Your task to perform on an android device: open app "Cash App" (install if not already installed) Image 0: 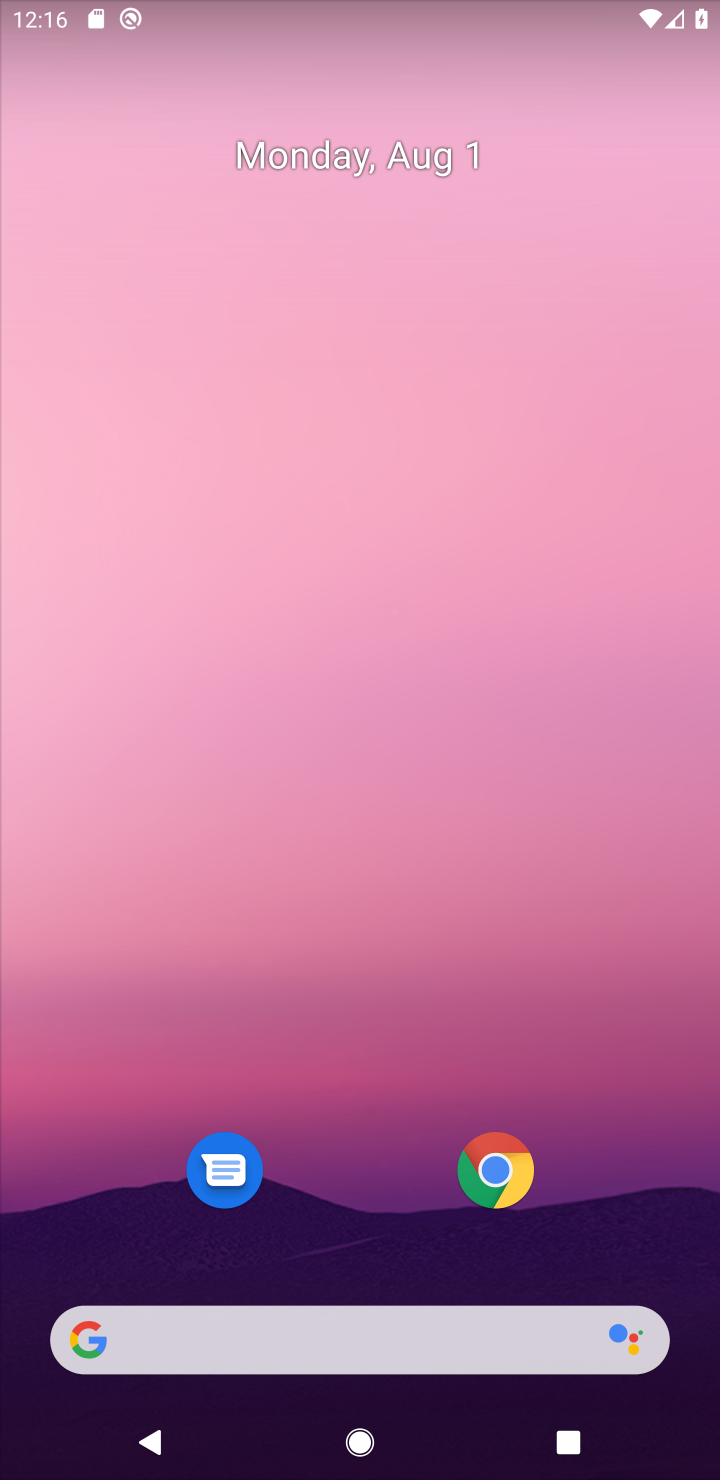
Step 0: press home button
Your task to perform on an android device: open app "Cash App" (install if not already installed) Image 1: 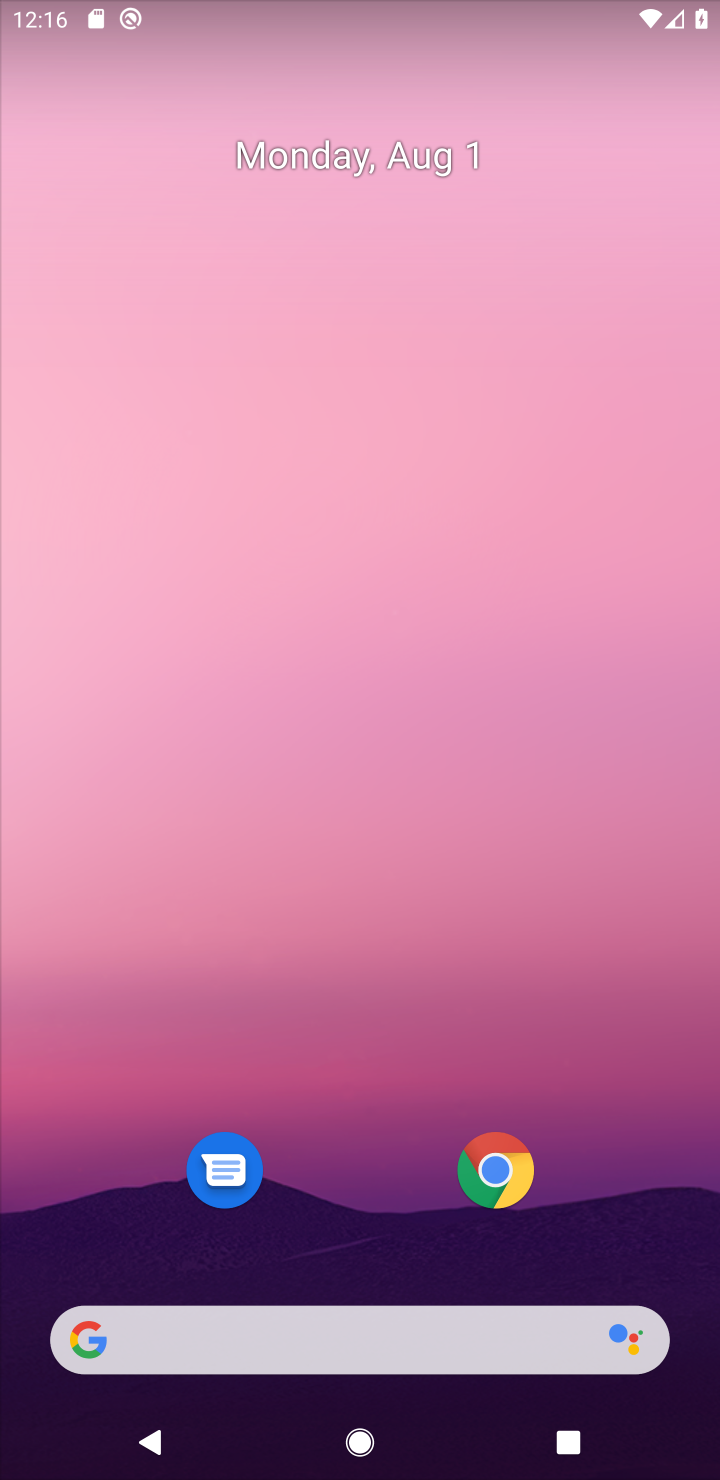
Step 1: drag from (646, 1209) to (268, 50)
Your task to perform on an android device: open app "Cash App" (install if not already installed) Image 2: 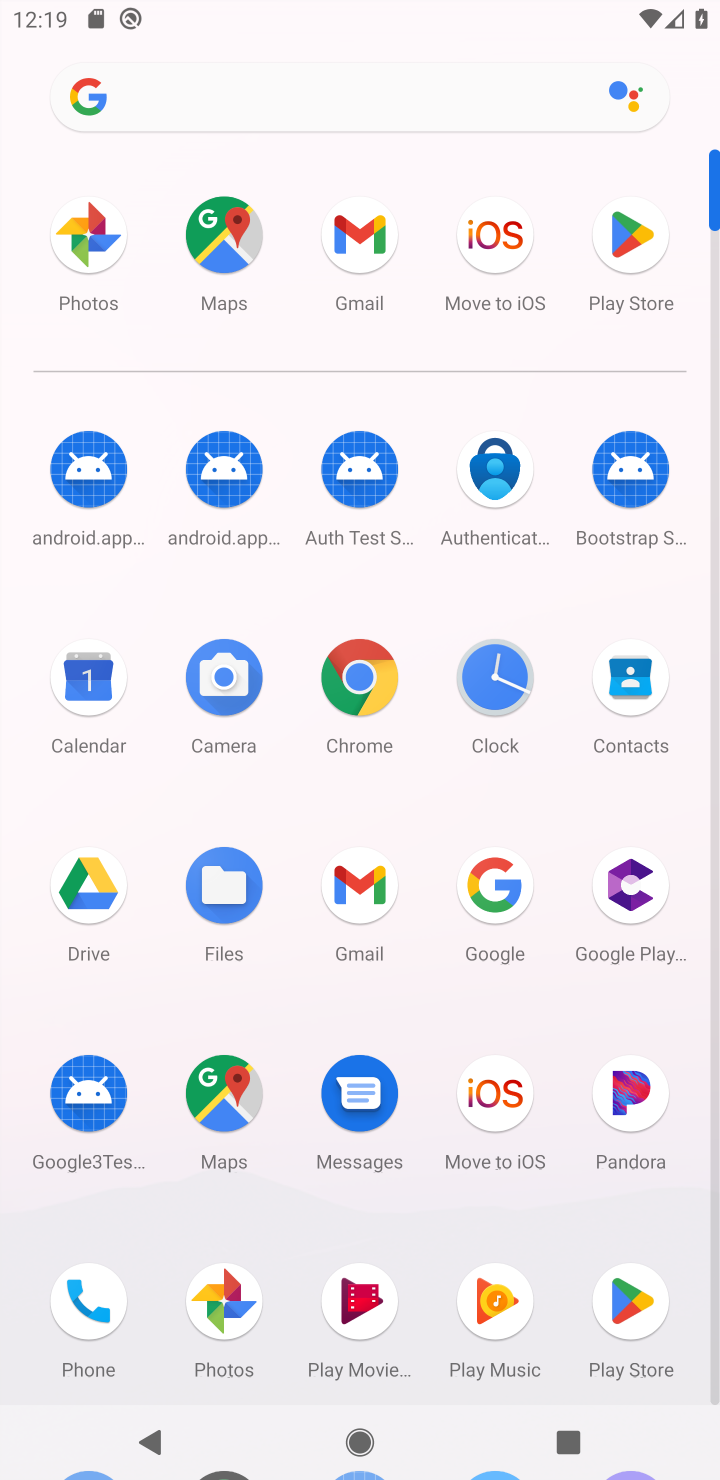
Step 2: click (617, 251)
Your task to perform on an android device: open app "Cash App" (install if not already installed) Image 3: 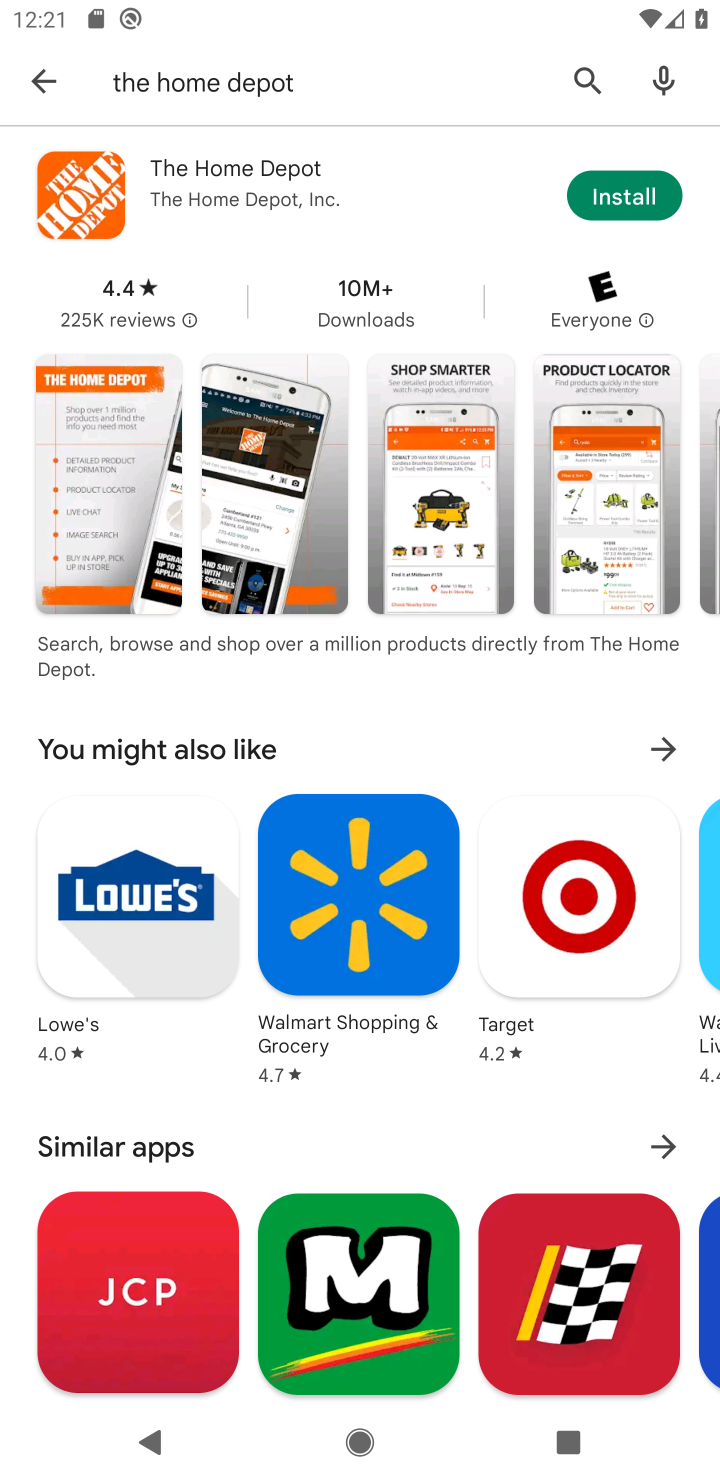
Step 3: press back button
Your task to perform on an android device: open app "Cash App" (install if not already installed) Image 4: 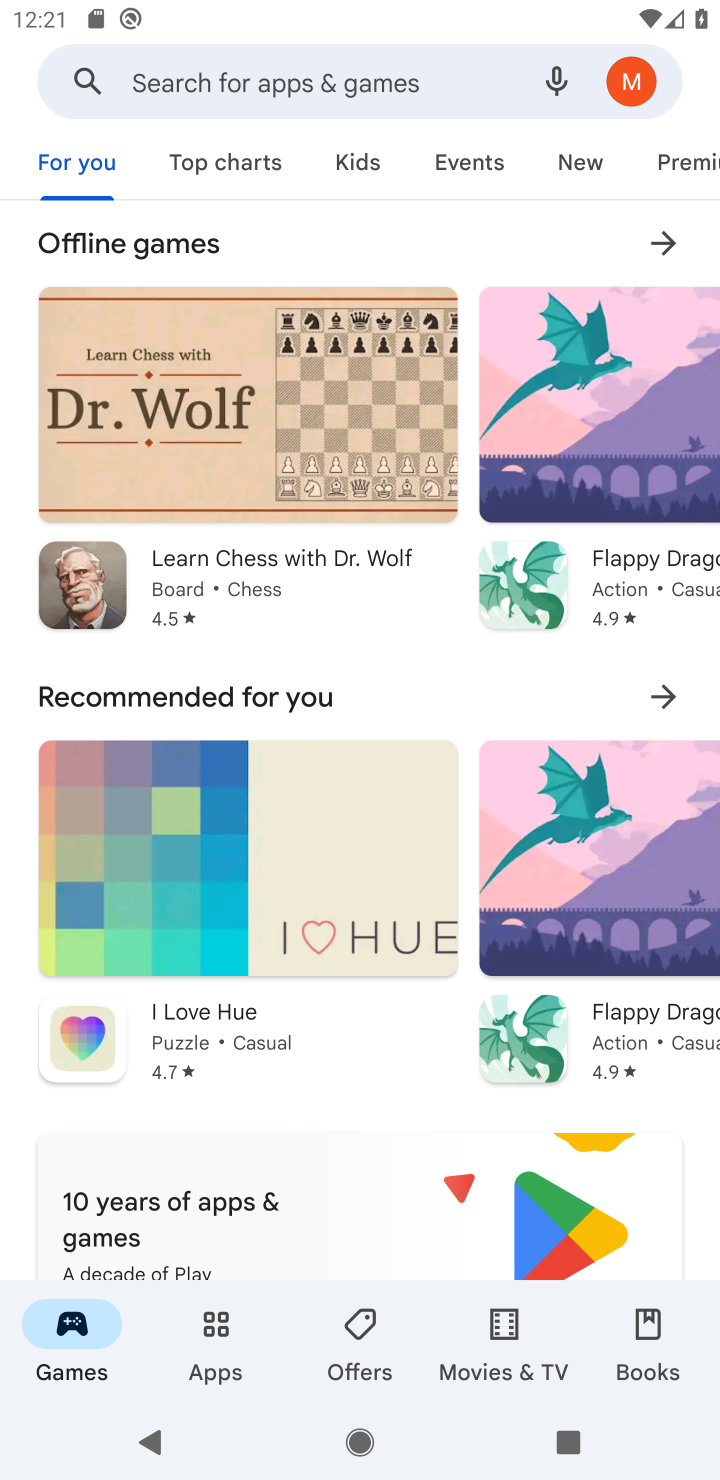
Step 4: click (254, 84)
Your task to perform on an android device: open app "Cash App" (install if not already installed) Image 5: 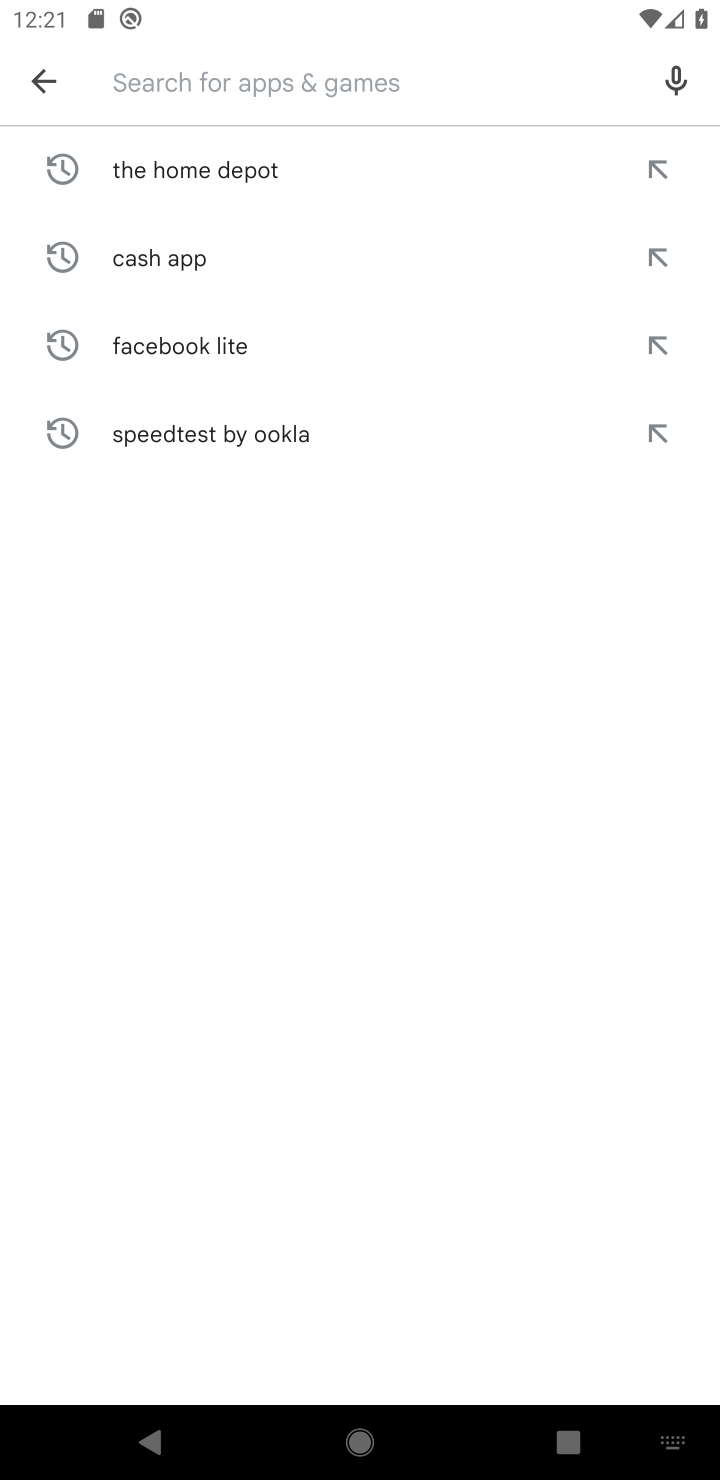
Step 5: type "Cash App"
Your task to perform on an android device: open app "Cash App" (install if not already installed) Image 6: 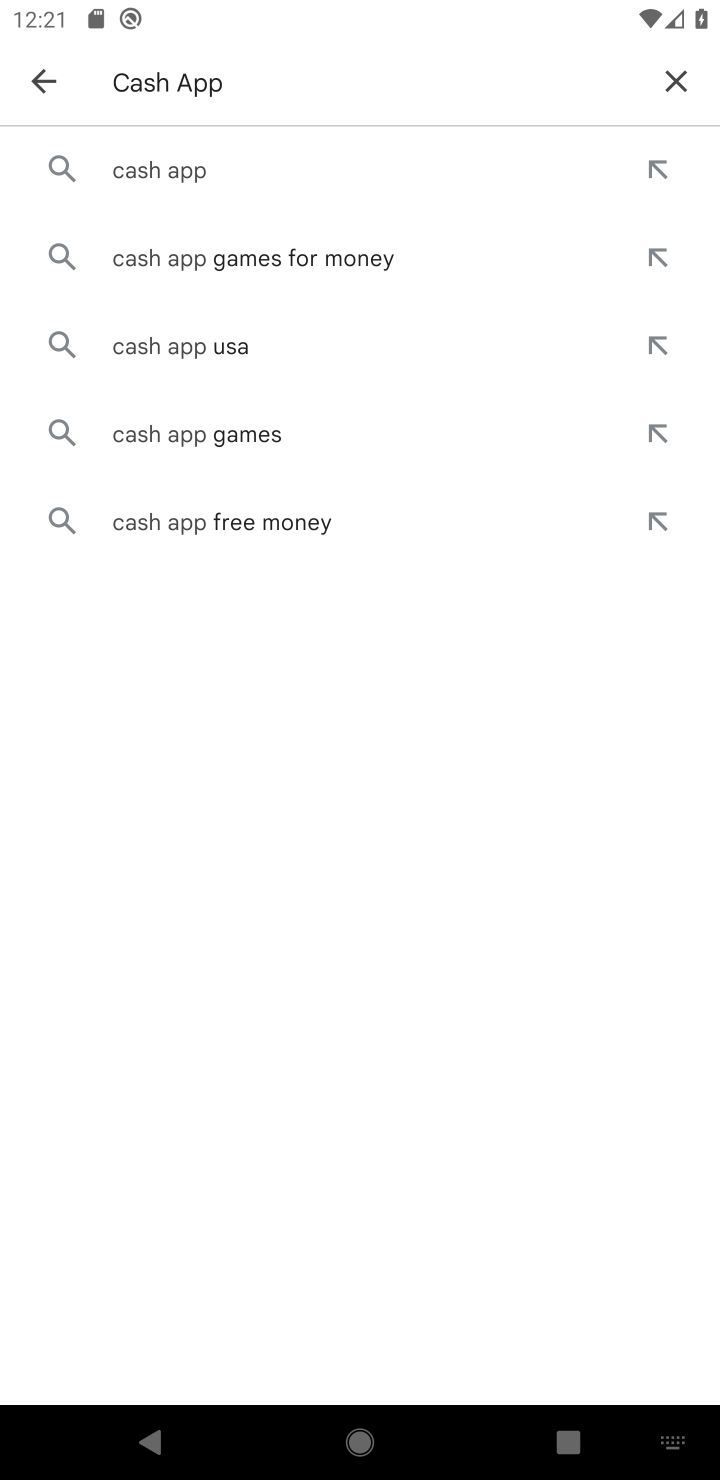
Step 6: click (174, 151)
Your task to perform on an android device: open app "Cash App" (install if not already installed) Image 7: 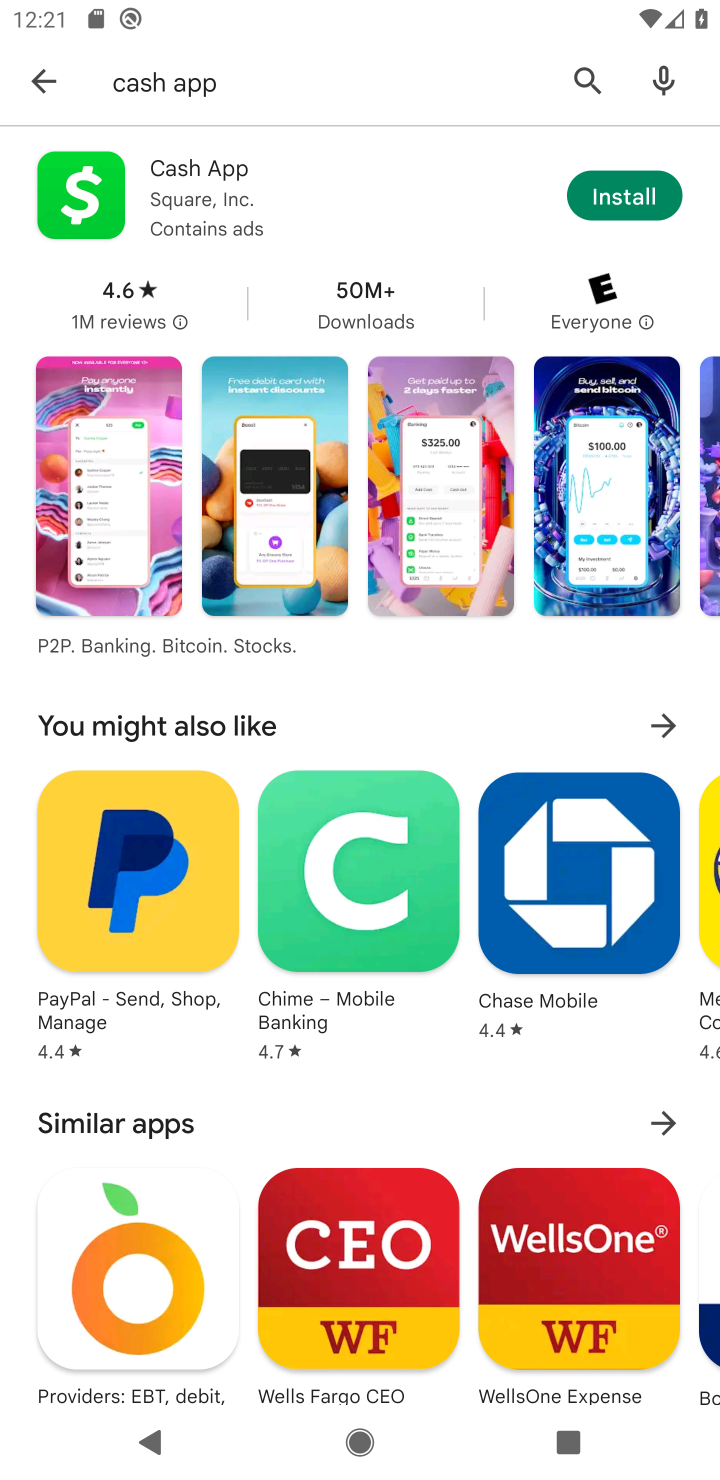
Step 7: task complete